Your task to perform on an android device: Open sound settings Image 0: 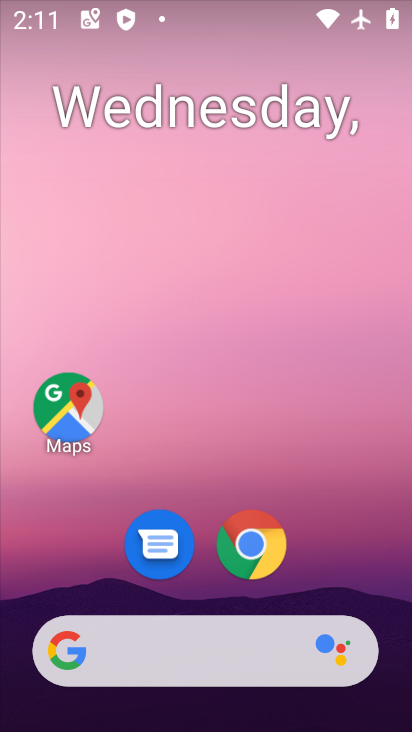
Step 0: drag from (337, 552) to (351, 125)
Your task to perform on an android device: Open sound settings Image 1: 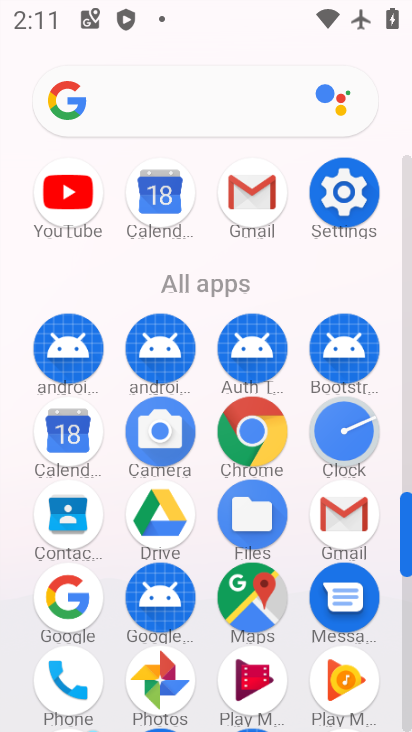
Step 1: click (334, 228)
Your task to perform on an android device: Open sound settings Image 2: 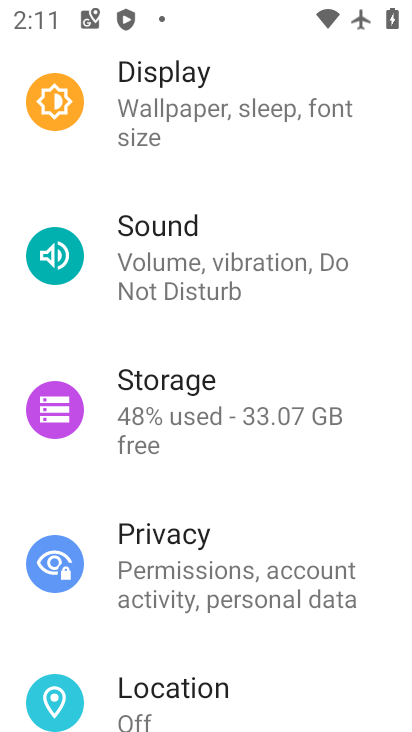
Step 2: click (219, 662)
Your task to perform on an android device: Open sound settings Image 3: 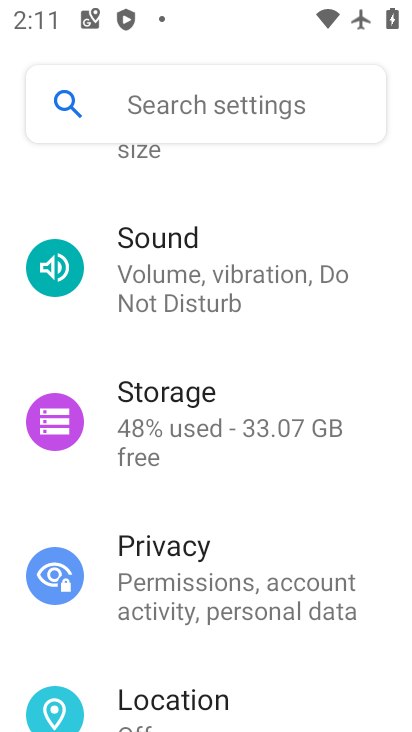
Step 3: click (199, 258)
Your task to perform on an android device: Open sound settings Image 4: 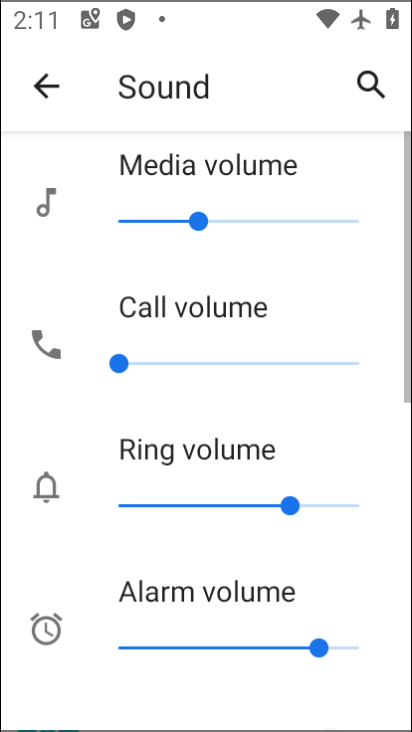
Step 4: task complete